Your task to perform on an android device: Open ESPN.com Image 0: 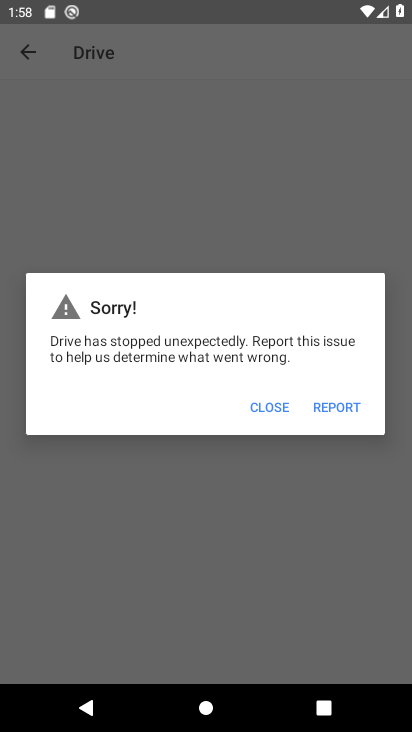
Step 0: press home button
Your task to perform on an android device: Open ESPN.com Image 1: 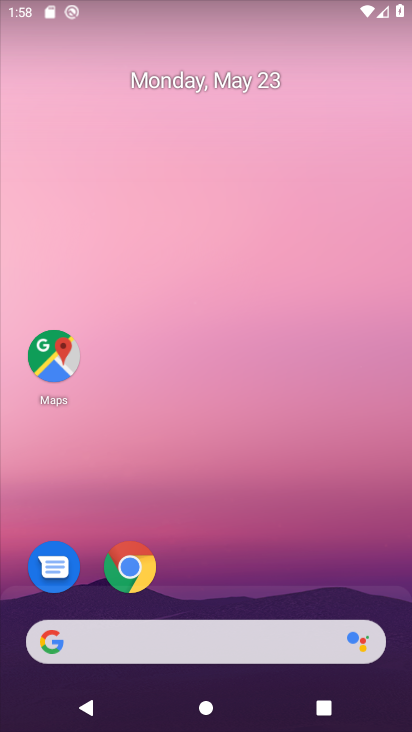
Step 1: click (147, 576)
Your task to perform on an android device: Open ESPN.com Image 2: 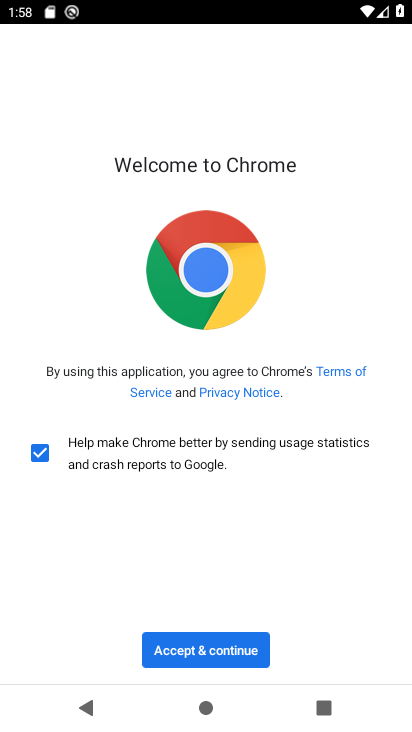
Step 2: click (191, 641)
Your task to perform on an android device: Open ESPN.com Image 3: 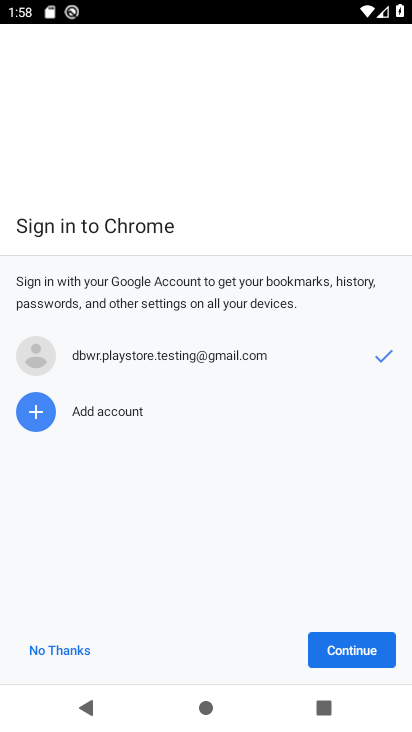
Step 3: click (350, 638)
Your task to perform on an android device: Open ESPN.com Image 4: 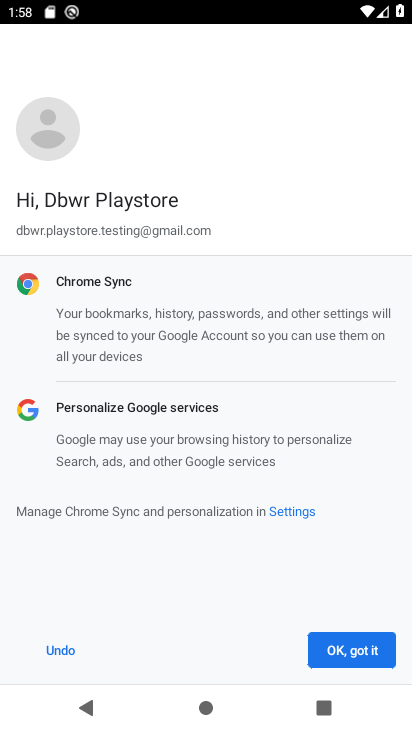
Step 4: click (350, 638)
Your task to perform on an android device: Open ESPN.com Image 5: 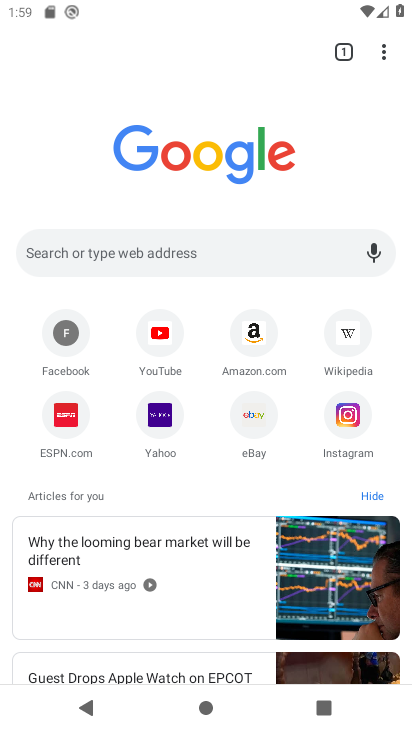
Step 5: click (237, 258)
Your task to perform on an android device: Open ESPN.com Image 6: 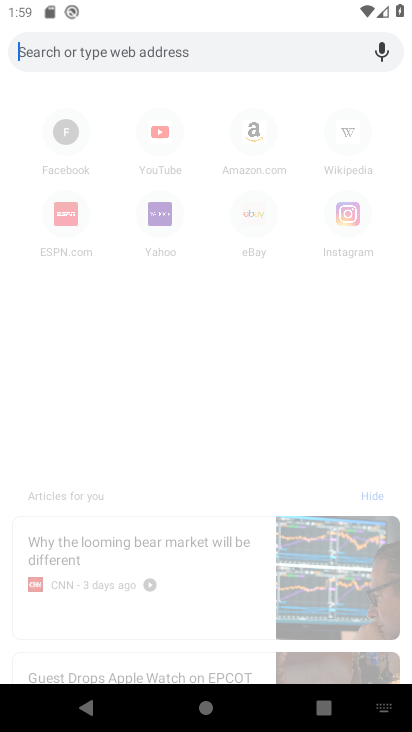
Step 6: type "ESPN.com"
Your task to perform on an android device: Open ESPN.com Image 7: 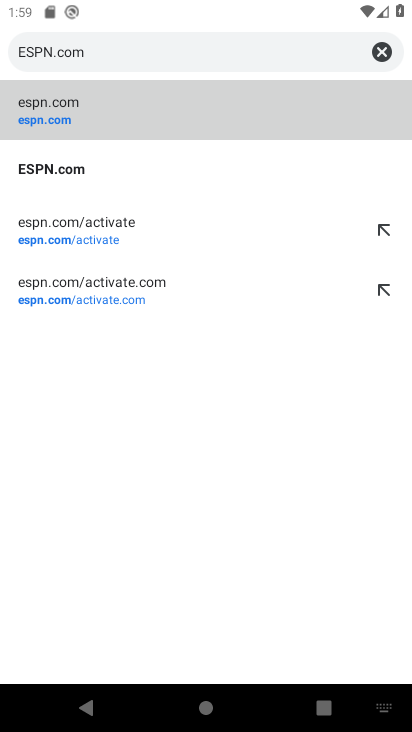
Step 7: click (121, 124)
Your task to perform on an android device: Open ESPN.com Image 8: 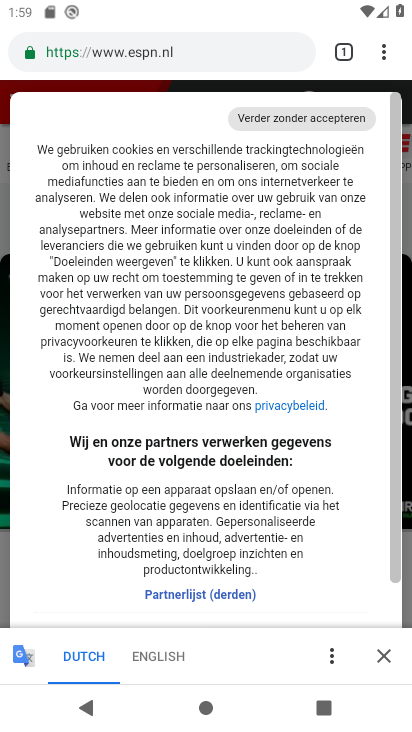
Step 8: task complete